Your task to perform on an android device: star an email in the gmail app Image 0: 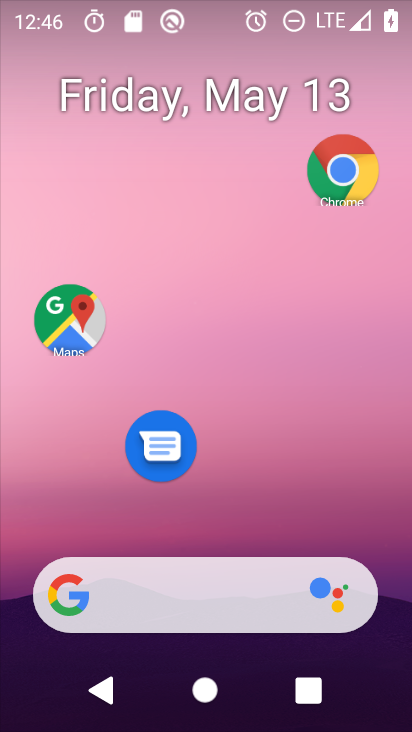
Step 0: drag from (232, 604) to (289, 18)
Your task to perform on an android device: star an email in the gmail app Image 1: 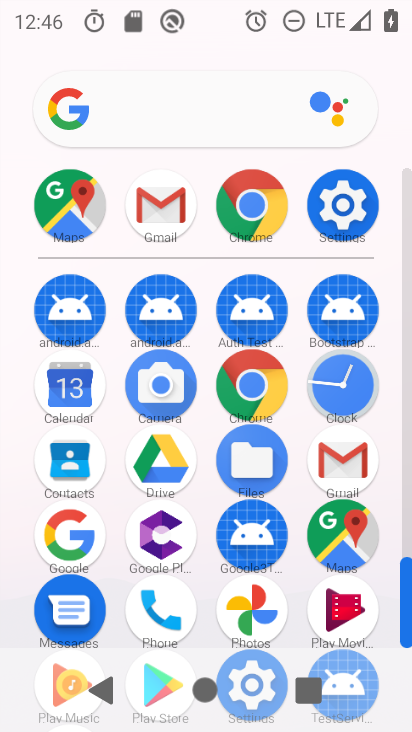
Step 1: click (349, 465)
Your task to perform on an android device: star an email in the gmail app Image 2: 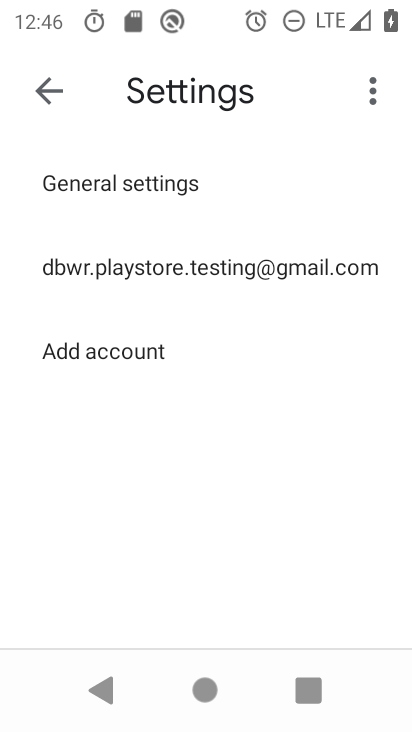
Step 2: press back button
Your task to perform on an android device: star an email in the gmail app Image 3: 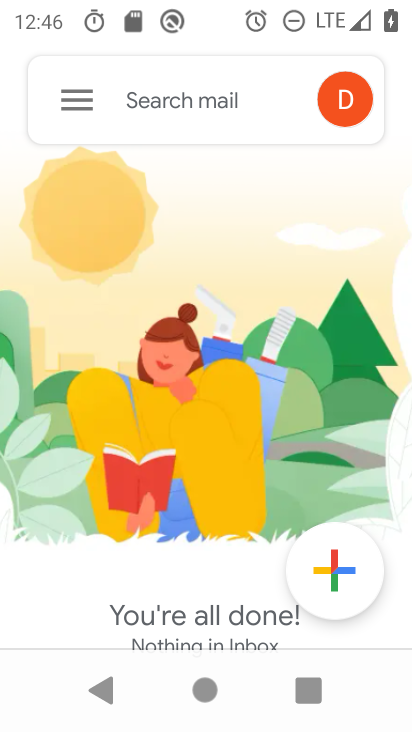
Step 3: click (74, 94)
Your task to perform on an android device: star an email in the gmail app Image 4: 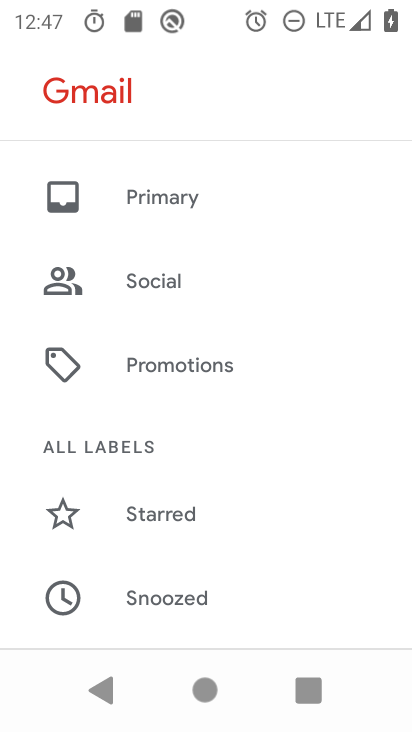
Step 4: click (187, 513)
Your task to perform on an android device: star an email in the gmail app Image 5: 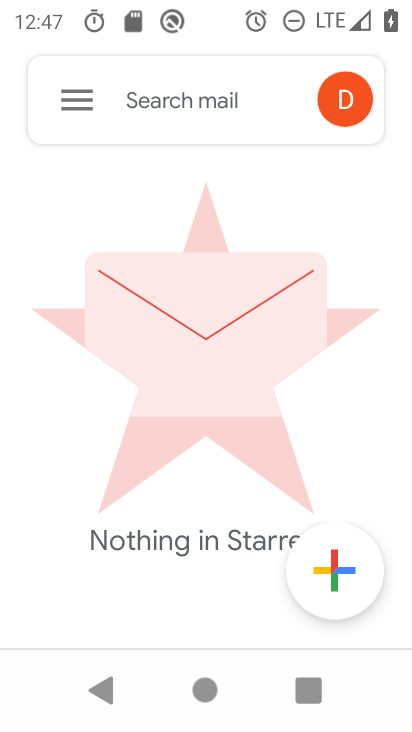
Step 5: task complete